Your task to perform on an android device: turn off sleep mode Image 0: 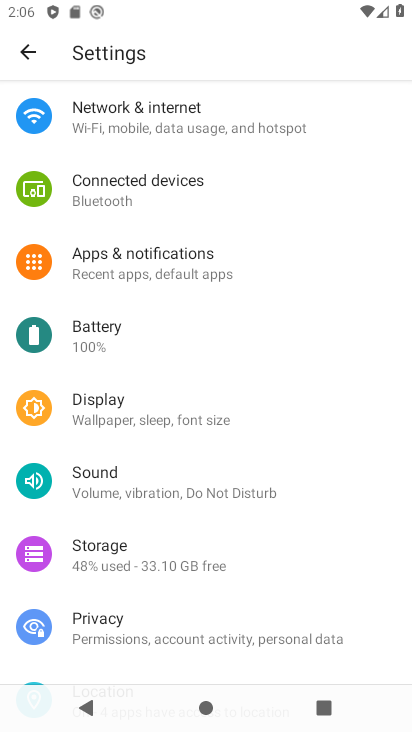
Step 0: click (175, 400)
Your task to perform on an android device: turn off sleep mode Image 1: 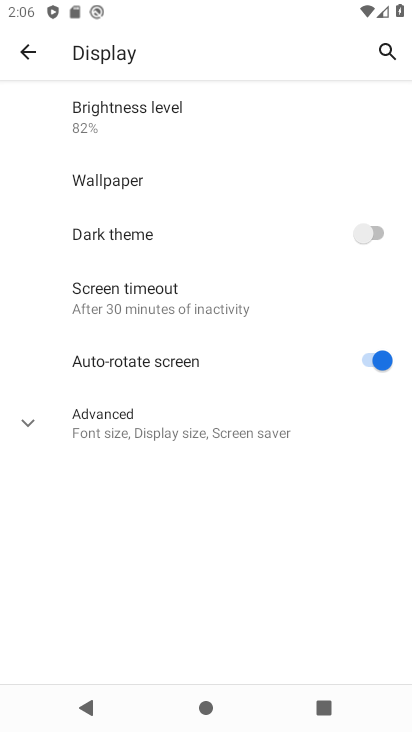
Step 1: click (181, 427)
Your task to perform on an android device: turn off sleep mode Image 2: 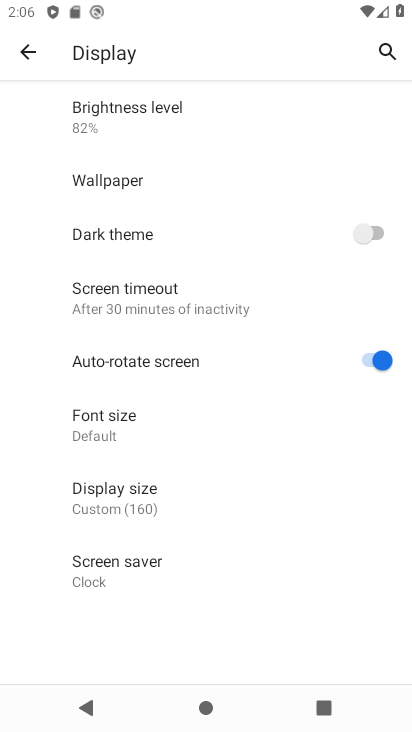
Step 2: task complete